Your task to perform on an android device: see sites visited before in the chrome app Image 0: 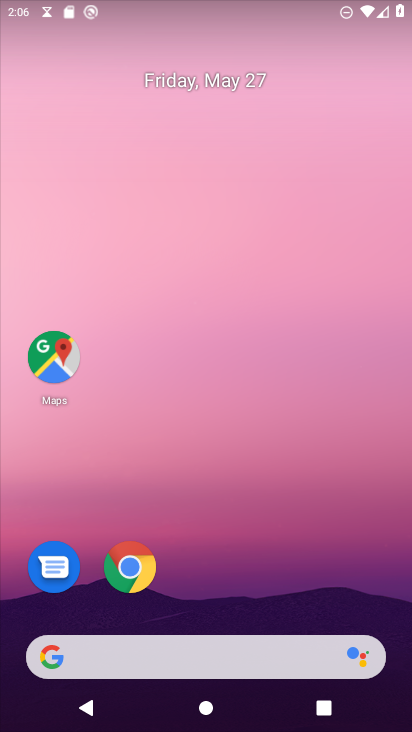
Step 0: click (141, 569)
Your task to perform on an android device: see sites visited before in the chrome app Image 1: 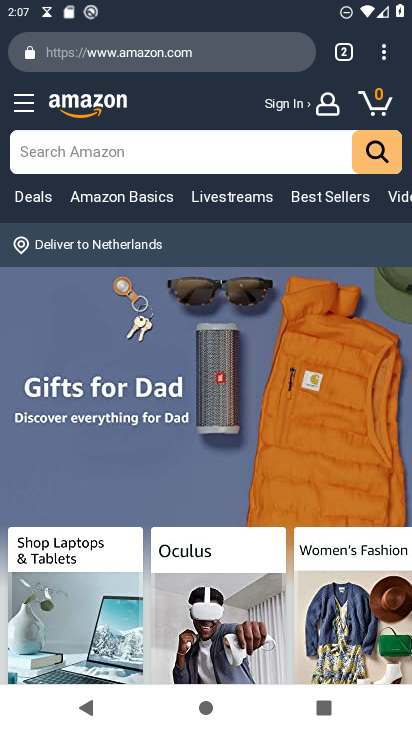
Step 1: click (381, 63)
Your task to perform on an android device: see sites visited before in the chrome app Image 2: 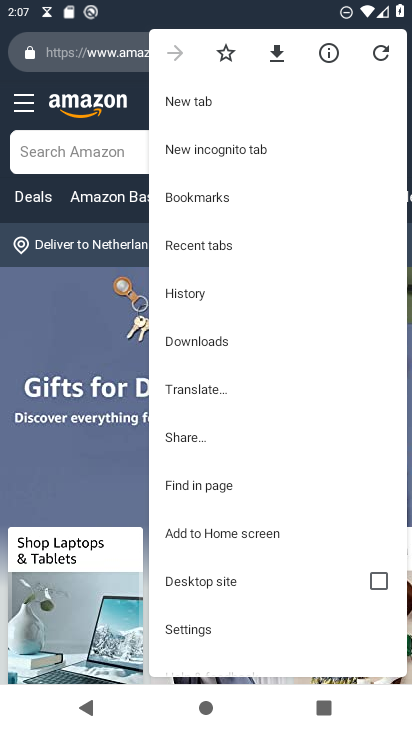
Step 2: click (200, 307)
Your task to perform on an android device: see sites visited before in the chrome app Image 3: 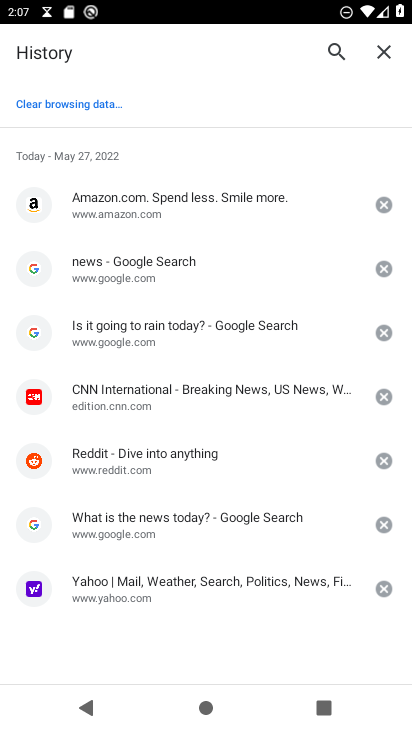
Step 3: task complete